Your task to perform on an android device: read, delete, or share a saved page in the chrome app Image 0: 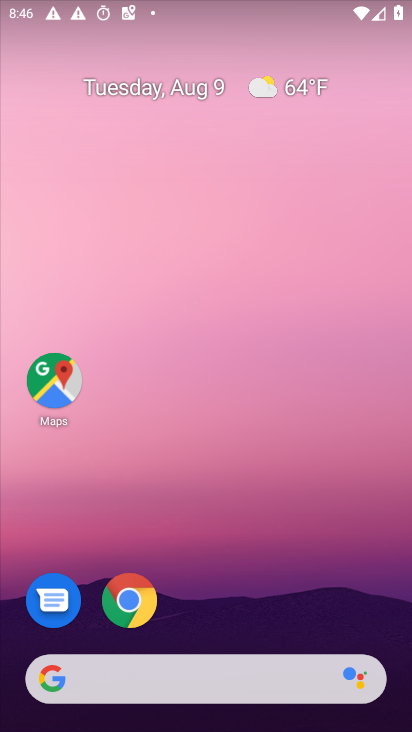
Step 0: press home button
Your task to perform on an android device: read, delete, or share a saved page in the chrome app Image 1: 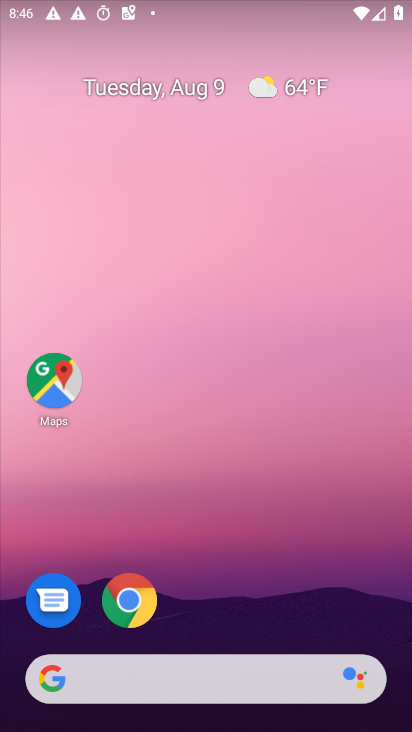
Step 1: click (127, 607)
Your task to perform on an android device: read, delete, or share a saved page in the chrome app Image 2: 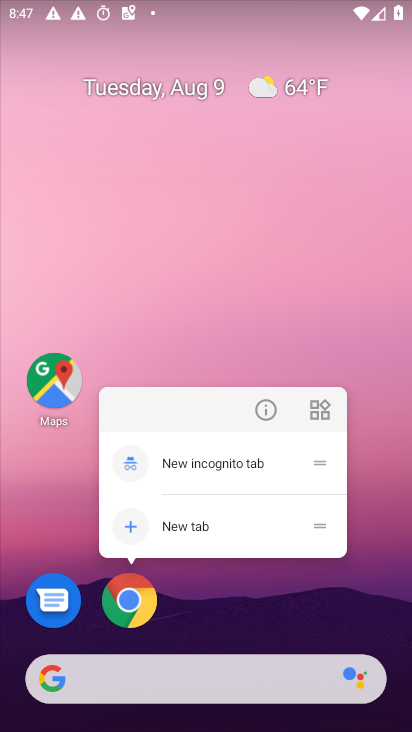
Step 2: click (127, 607)
Your task to perform on an android device: read, delete, or share a saved page in the chrome app Image 3: 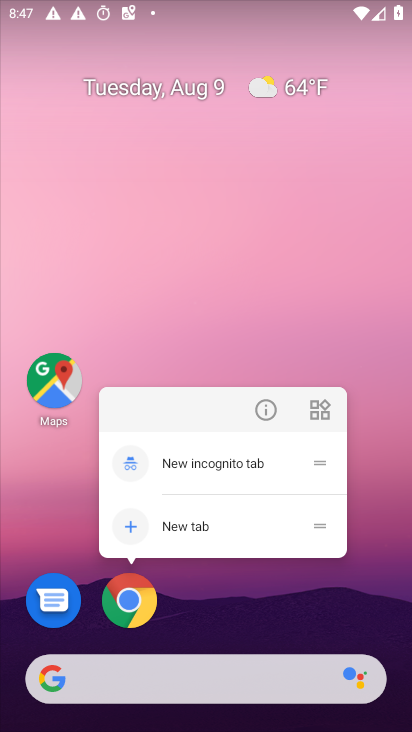
Step 3: click (127, 607)
Your task to perform on an android device: read, delete, or share a saved page in the chrome app Image 4: 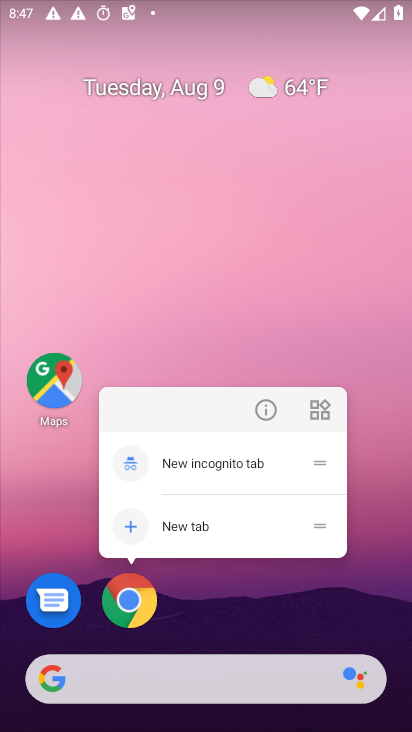
Step 4: click (127, 607)
Your task to perform on an android device: read, delete, or share a saved page in the chrome app Image 5: 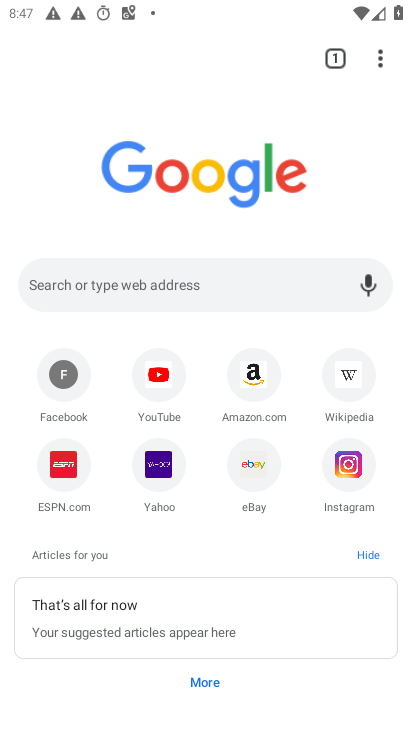
Step 5: drag from (373, 57) to (162, 391)
Your task to perform on an android device: read, delete, or share a saved page in the chrome app Image 6: 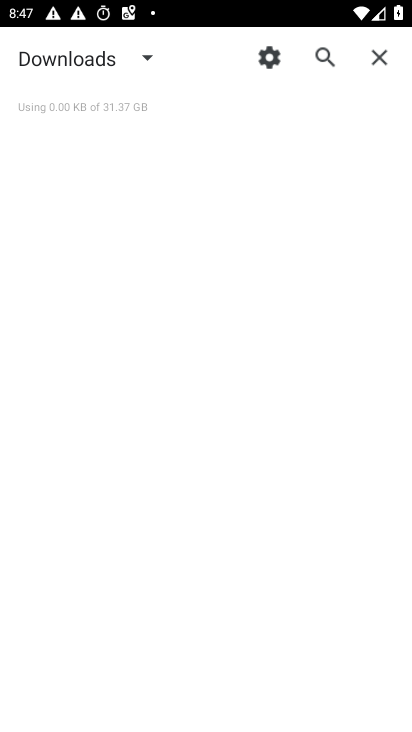
Step 6: click (140, 55)
Your task to perform on an android device: read, delete, or share a saved page in the chrome app Image 7: 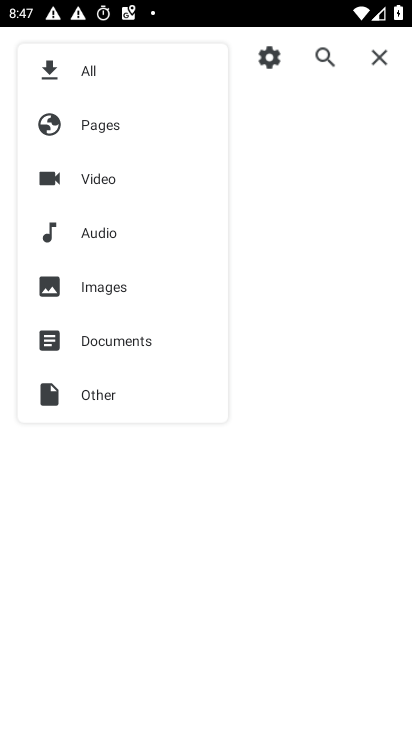
Step 7: click (97, 125)
Your task to perform on an android device: read, delete, or share a saved page in the chrome app Image 8: 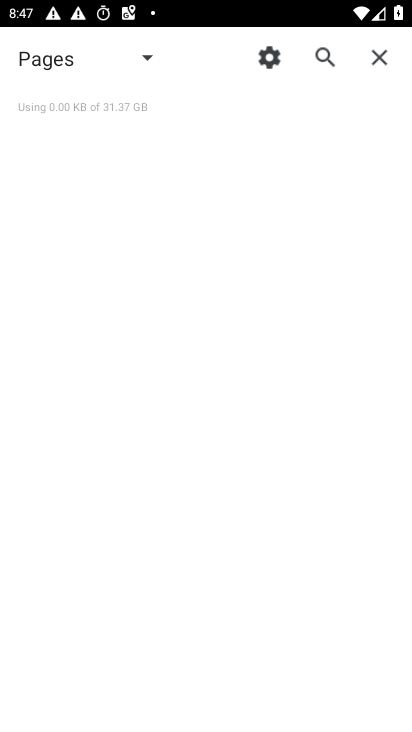
Step 8: task complete